Your task to perform on an android device: change the clock display to digital Image 0: 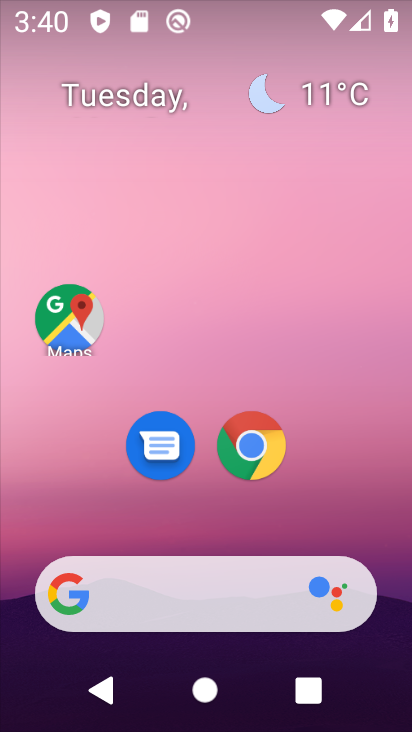
Step 0: drag from (109, 563) to (258, 48)
Your task to perform on an android device: change the clock display to digital Image 1: 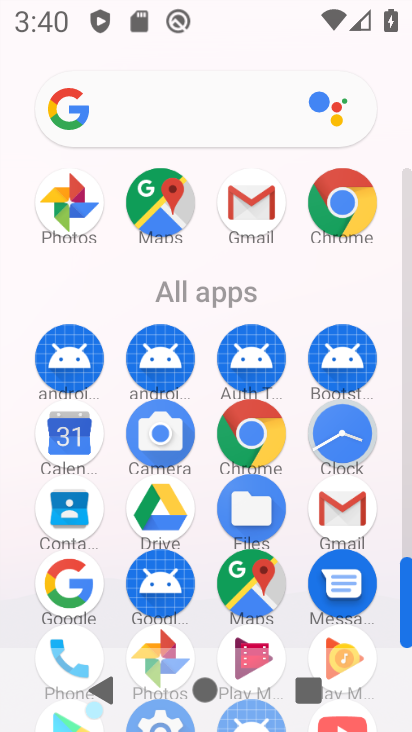
Step 1: click (348, 452)
Your task to perform on an android device: change the clock display to digital Image 2: 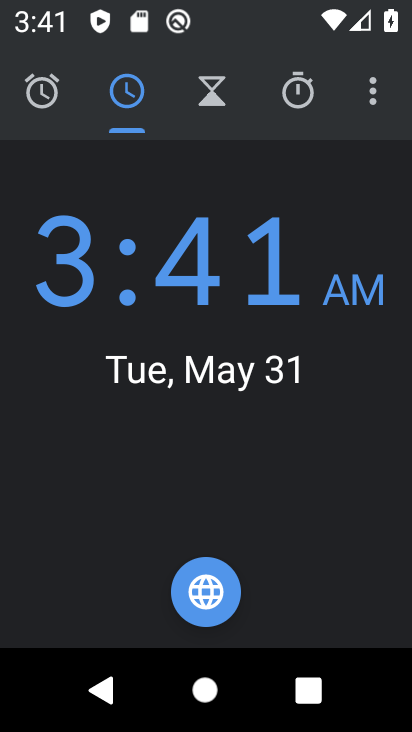
Step 2: click (384, 87)
Your task to perform on an android device: change the clock display to digital Image 3: 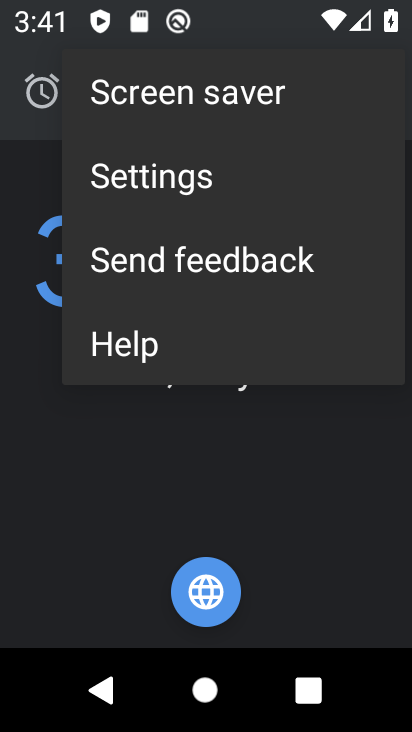
Step 3: click (292, 185)
Your task to perform on an android device: change the clock display to digital Image 4: 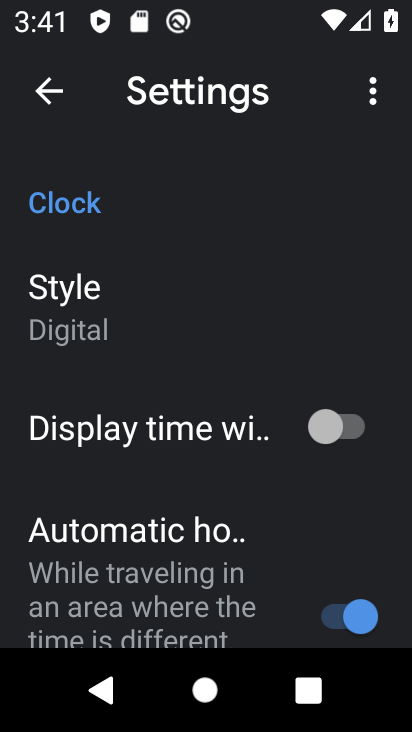
Step 4: click (244, 322)
Your task to perform on an android device: change the clock display to digital Image 5: 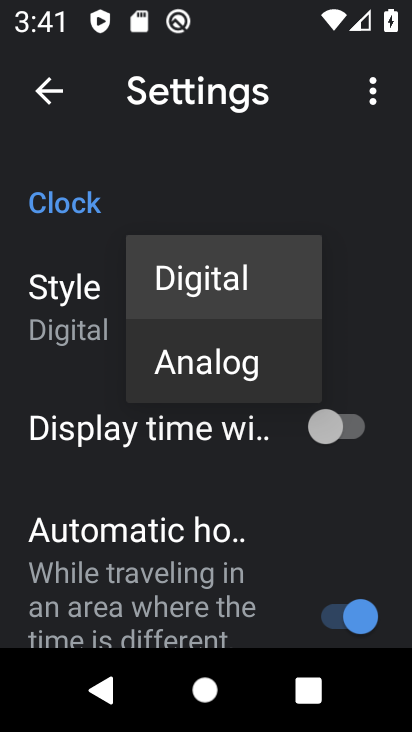
Step 5: task complete